Your task to perform on an android device: Open sound settings Image 0: 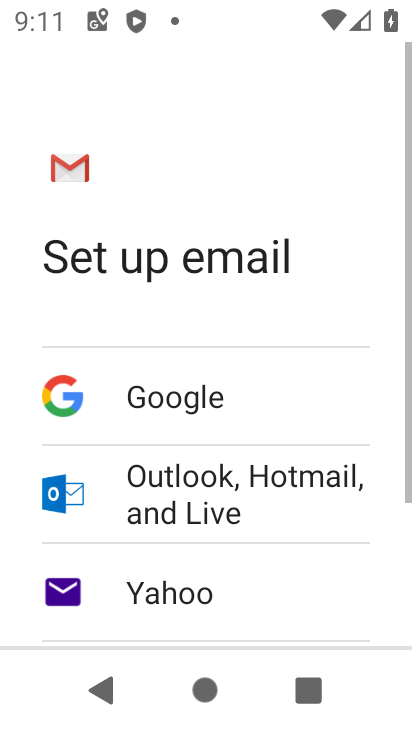
Step 0: press home button
Your task to perform on an android device: Open sound settings Image 1: 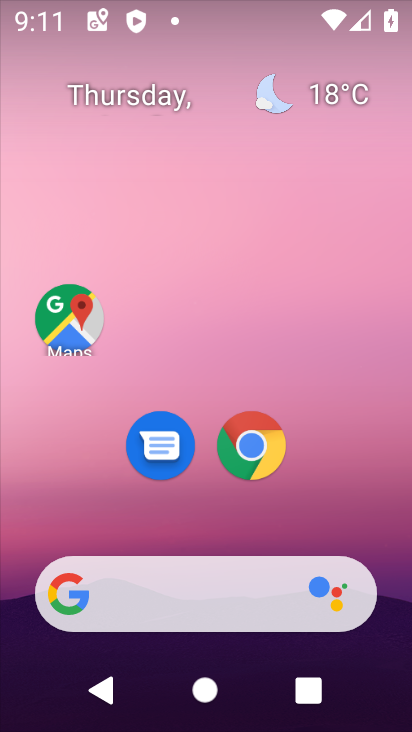
Step 1: drag from (393, 555) to (313, 172)
Your task to perform on an android device: Open sound settings Image 2: 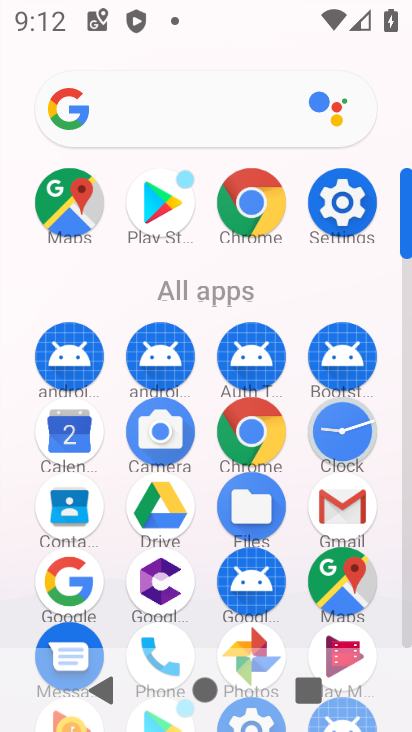
Step 2: click (338, 196)
Your task to perform on an android device: Open sound settings Image 3: 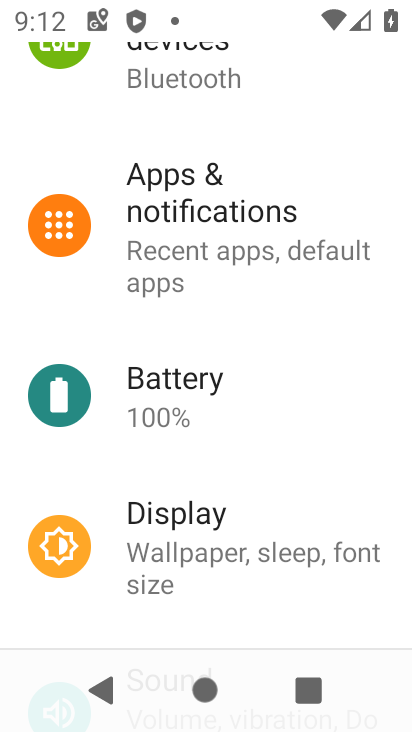
Step 3: drag from (228, 595) to (198, 232)
Your task to perform on an android device: Open sound settings Image 4: 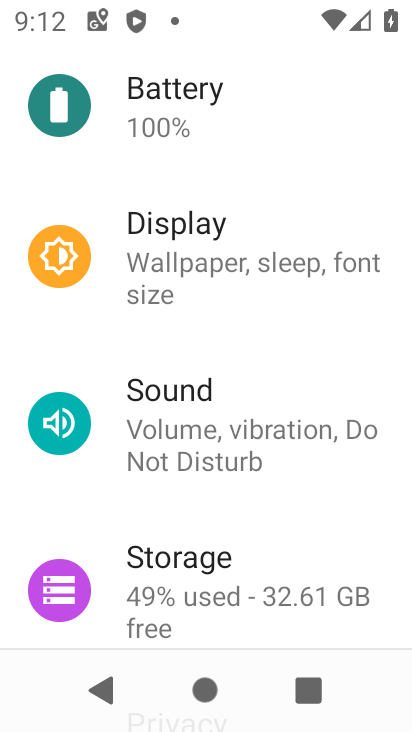
Step 4: click (245, 434)
Your task to perform on an android device: Open sound settings Image 5: 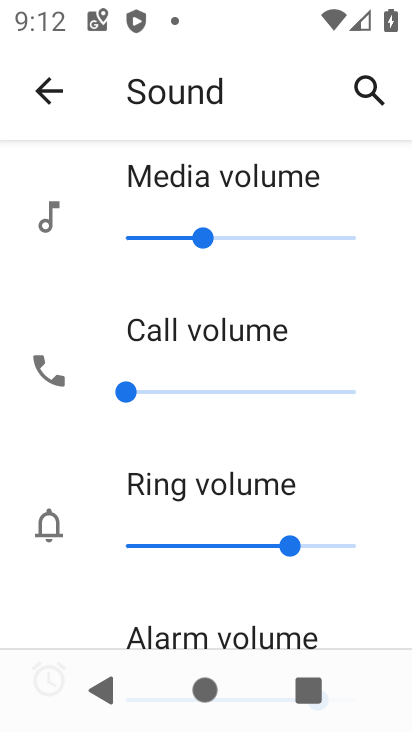
Step 5: task complete